Your task to perform on an android device: Find the nearest electronics store that's open tomorrow Image 0: 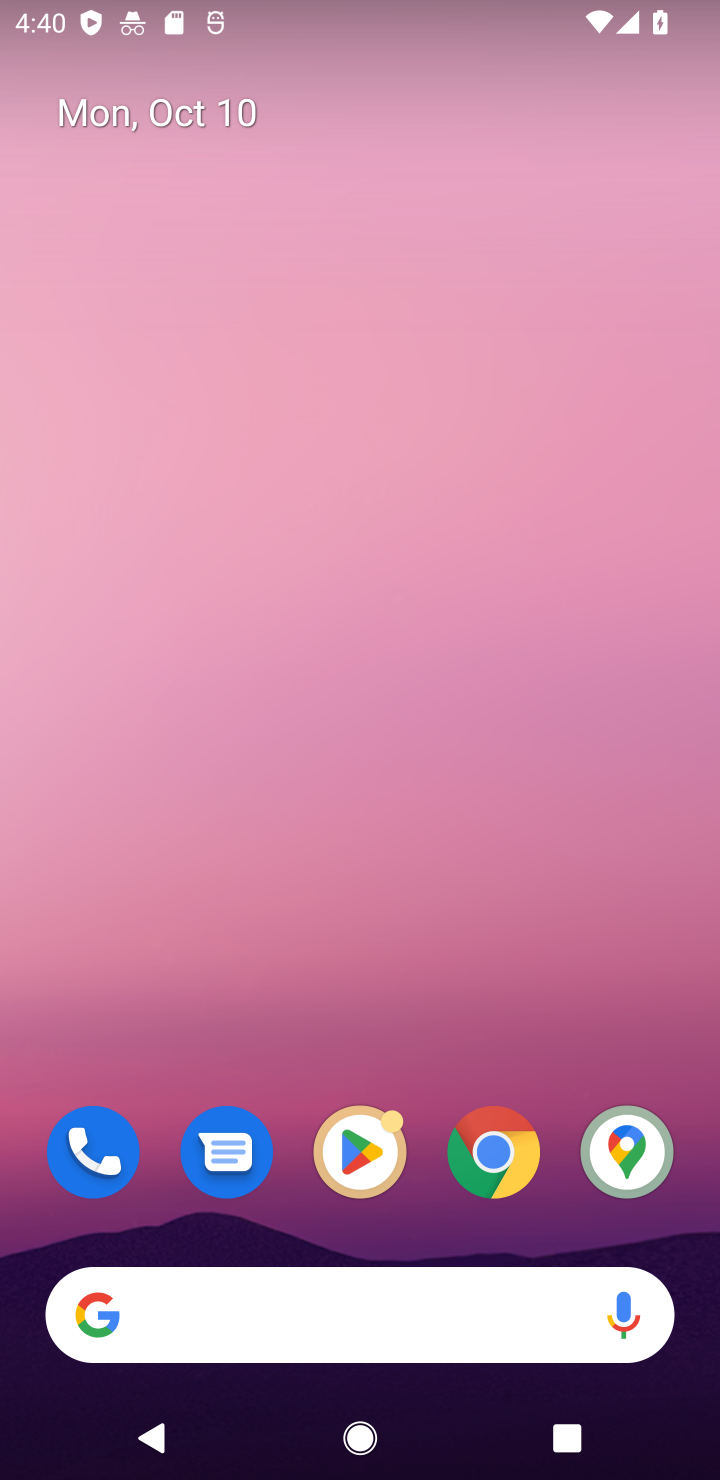
Step 0: click (498, 1164)
Your task to perform on an android device: Find the nearest electronics store that's open tomorrow Image 1: 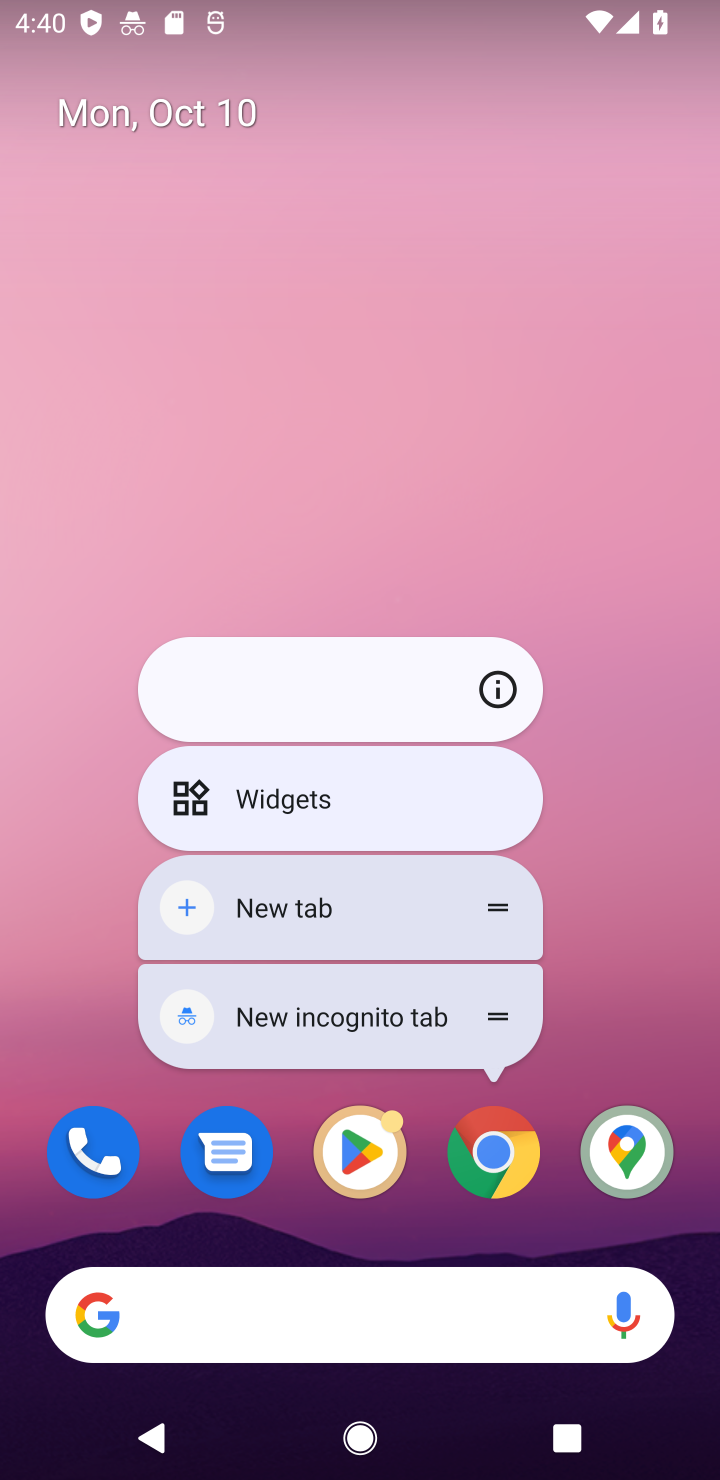
Step 1: click (496, 1153)
Your task to perform on an android device: Find the nearest electronics store that's open tomorrow Image 2: 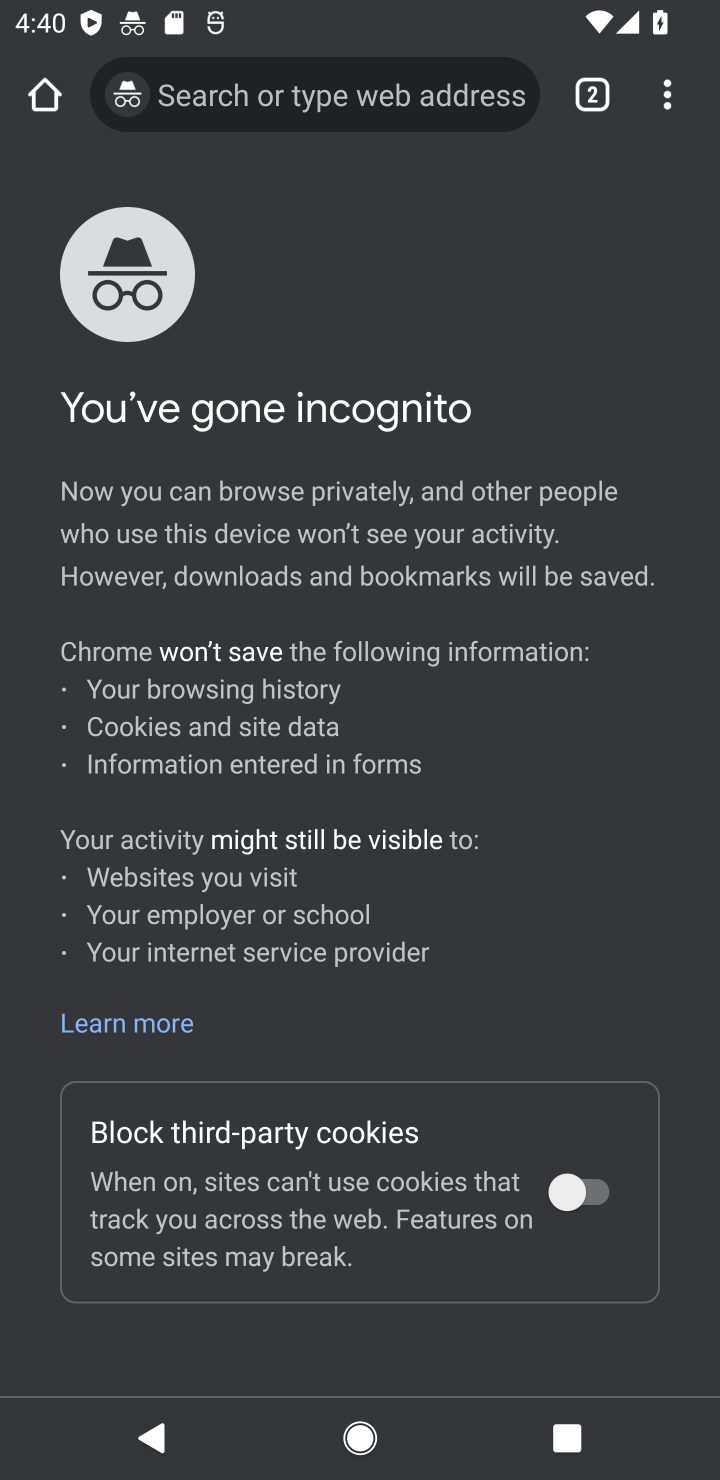
Step 2: click (332, 98)
Your task to perform on an android device: Find the nearest electronics store that's open tomorrow Image 3: 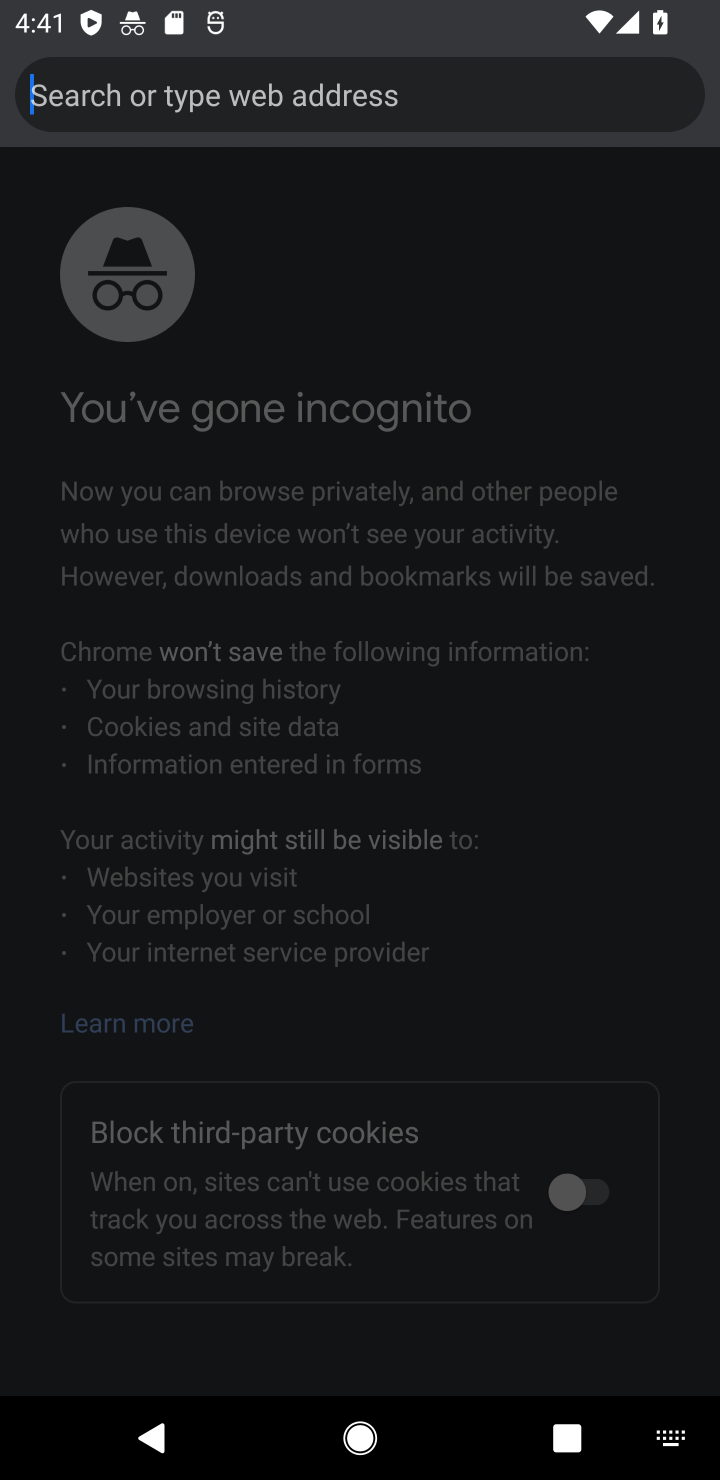
Step 3: type "nearest electronics store that's open tomorrow"
Your task to perform on an android device: Find the nearest electronics store that's open tomorrow Image 4: 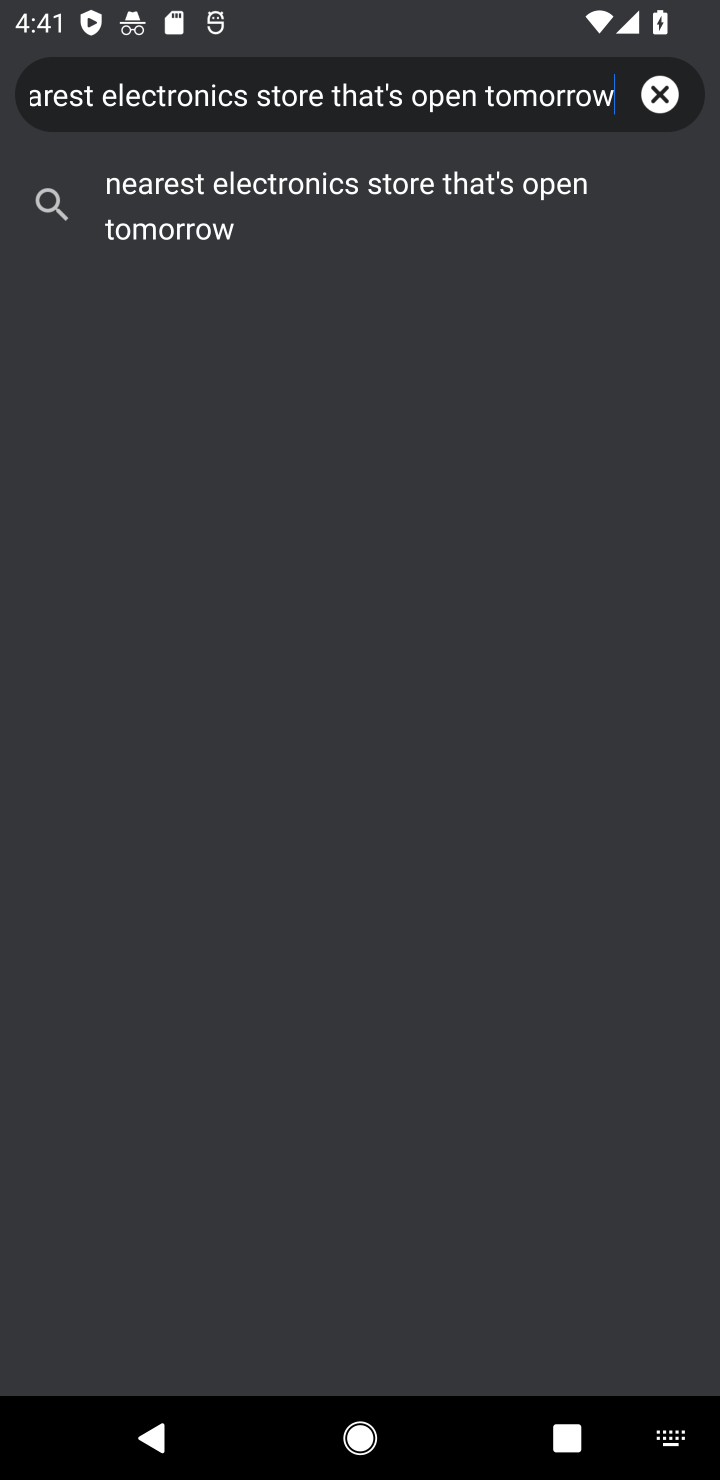
Step 4: click (343, 210)
Your task to perform on an android device: Find the nearest electronics store that's open tomorrow Image 5: 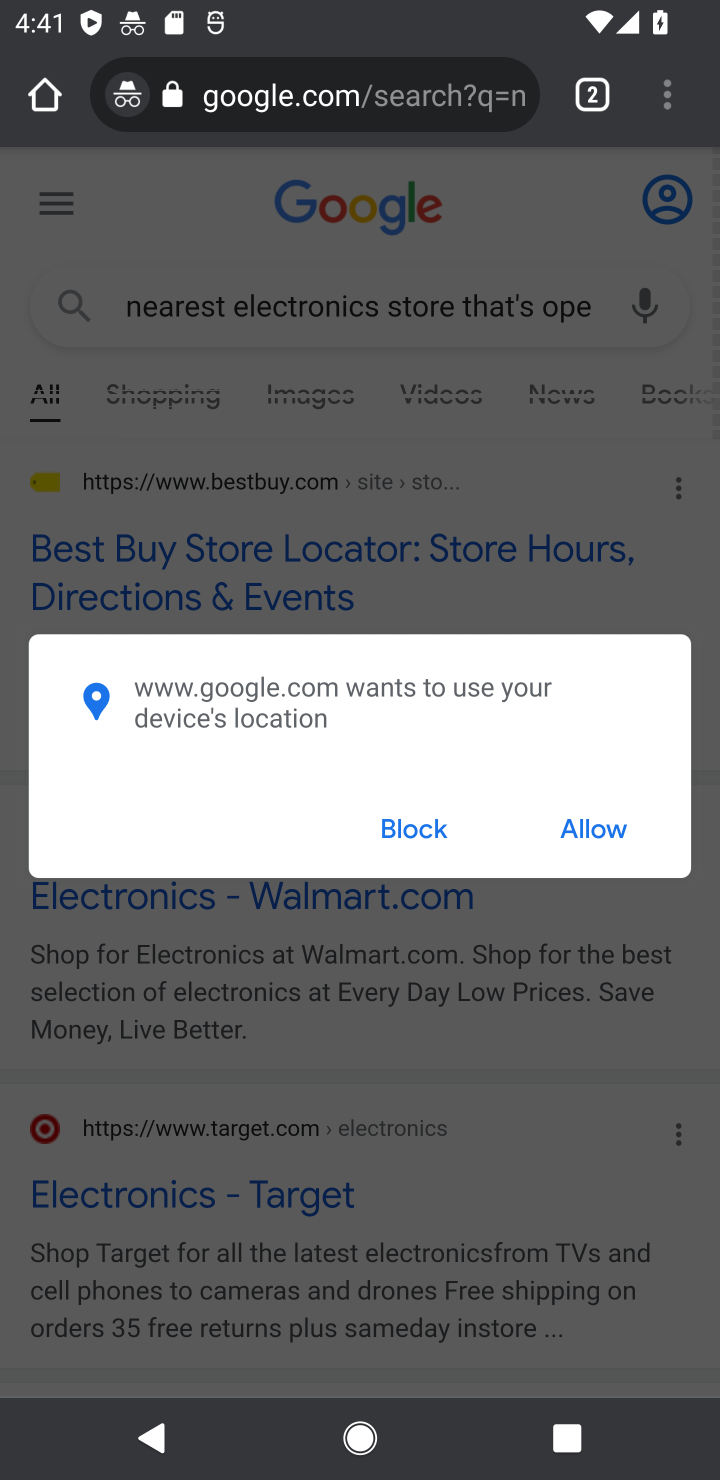
Step 5: click (625, 852)
Your task to perform on an android device: Find the nearest electronics store that's open tomorrow Image 6: 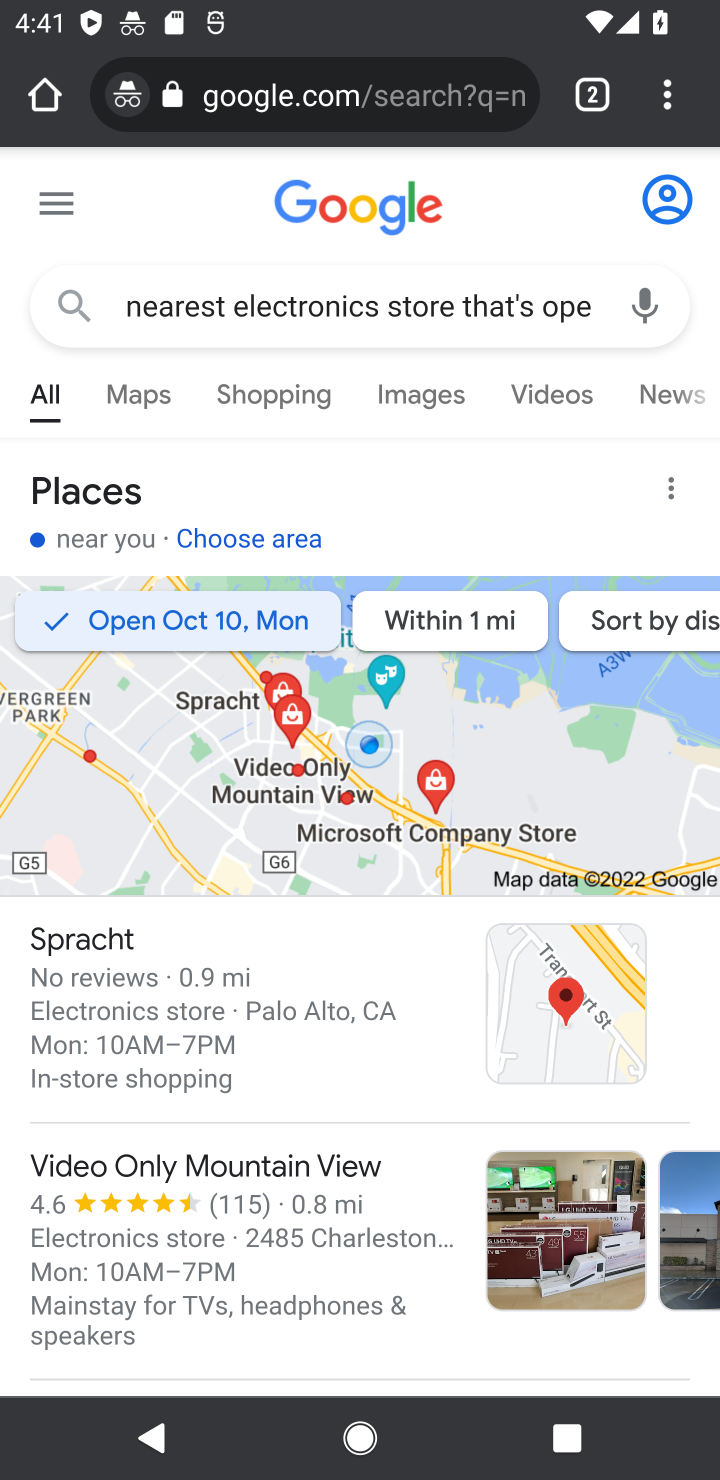
Step 6: task complete